Your task to perform on an android device: install app "Yahoo Mail" Image 0: 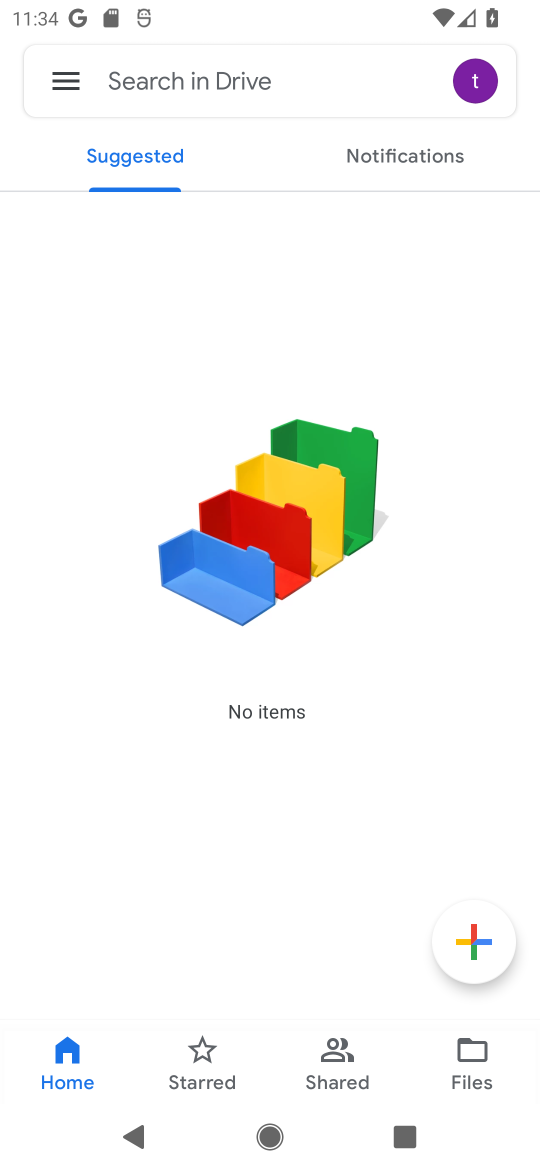
Step 0: press back button
Your task to perform on an android device: install app "Yahoo Mail" Image 1: 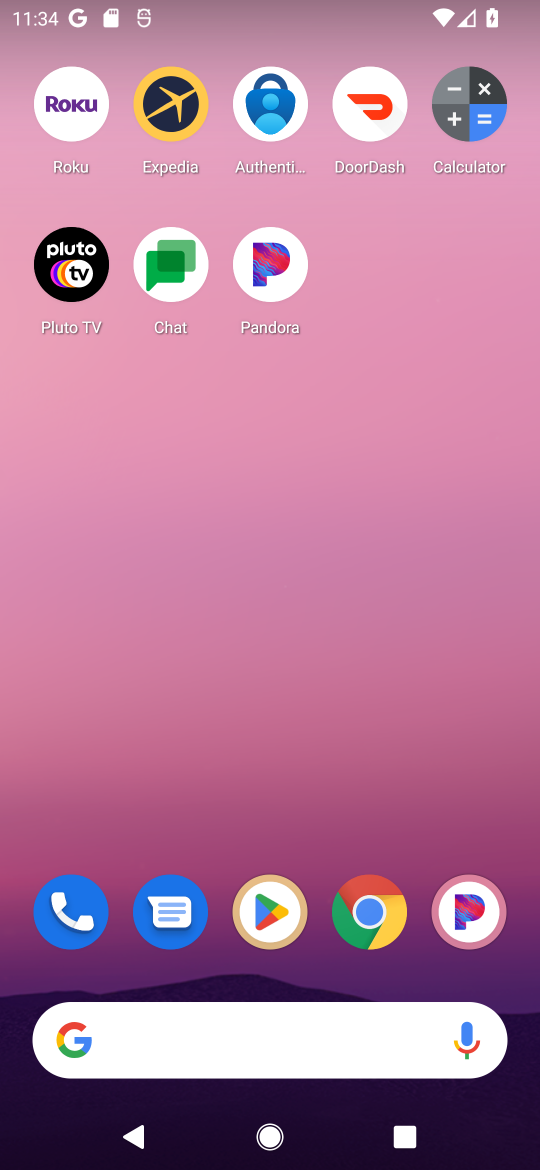
Step 1: click (264, 910)
Your task to perform on an android device: install app "Yahoo Mail" Image 2: 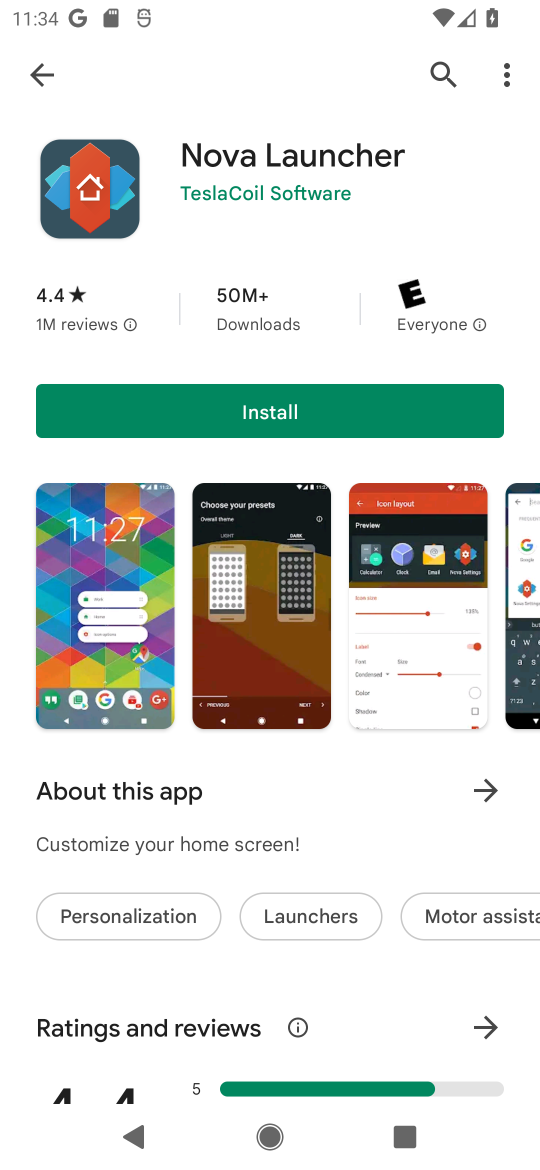
Step 2: click (440, 66)
Your task to perform on an android device: install app "Yahoo Mail" Image 3: 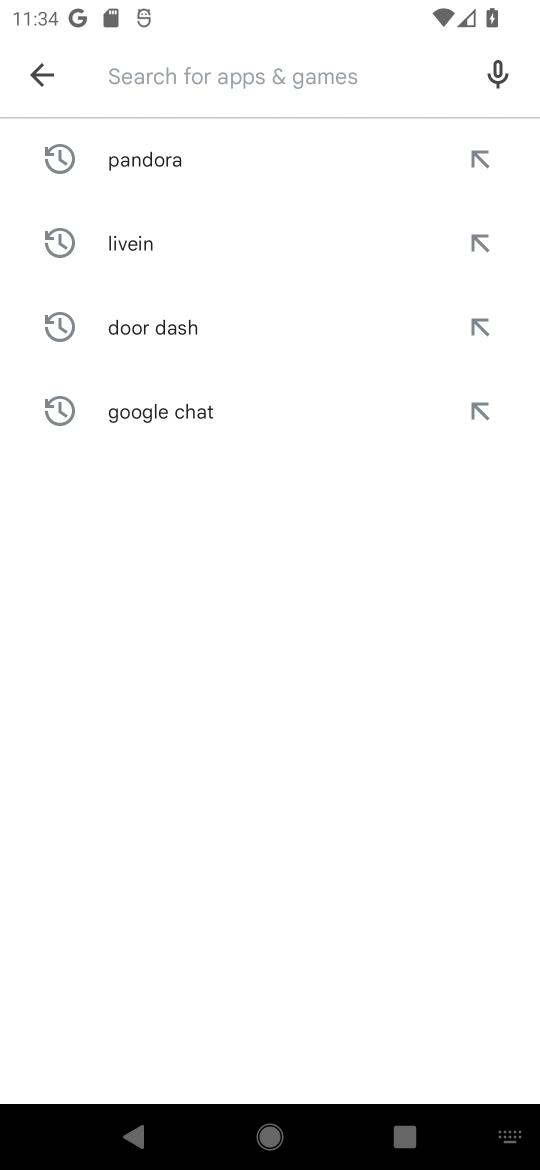
Step 3: click (179, 82)
Your task to perform on an android device: install app "Yahoo Mail" Image 4: 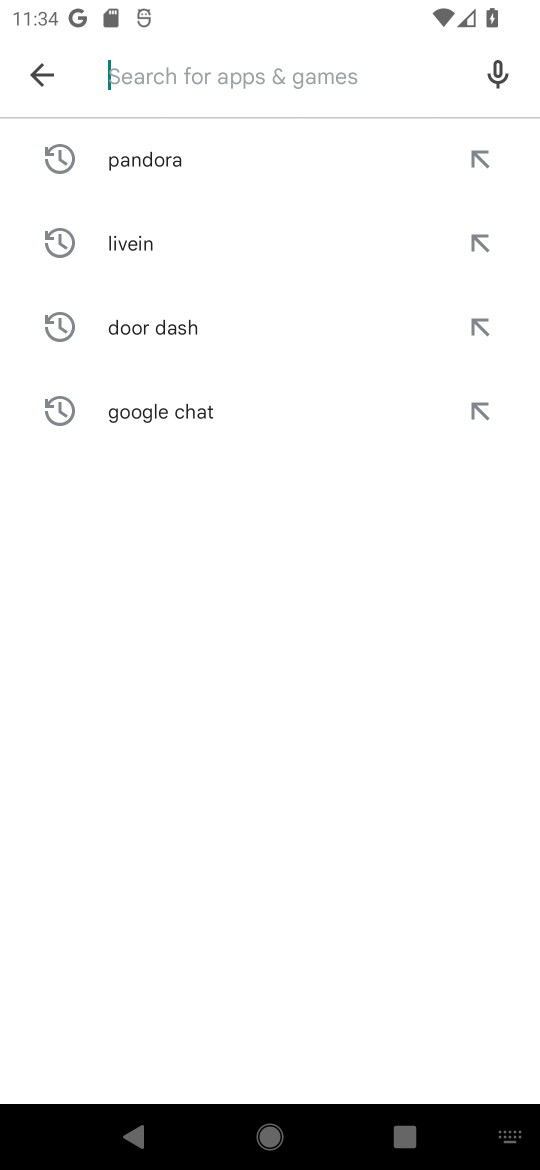
Step 4: type "Yahoo Mail"
Your task to perform on an android device: install app "Yahoo Mail" Image 5: 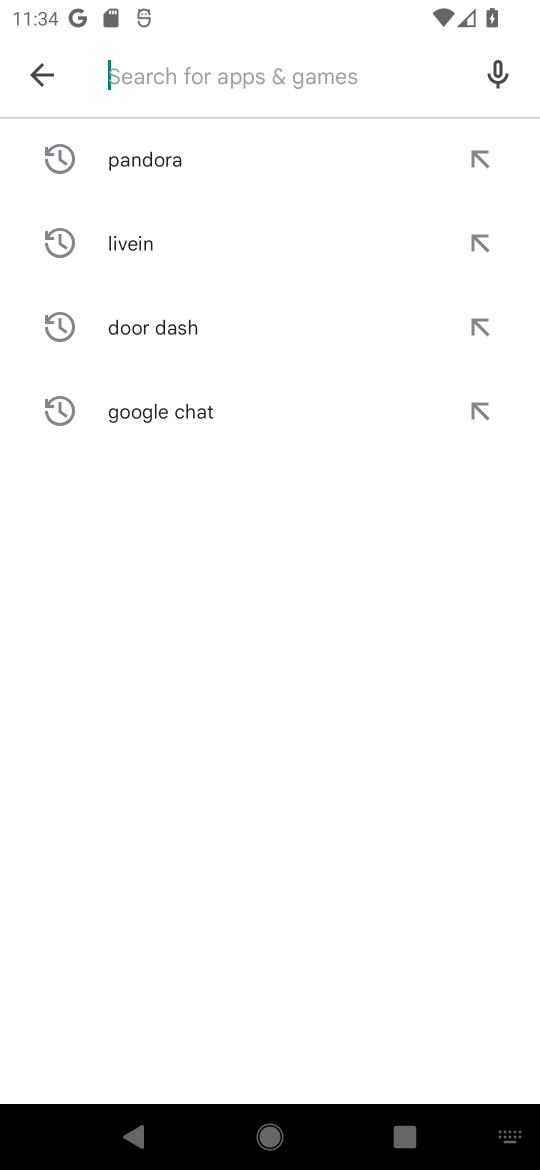
Step 5: click (316, 670)
Your task to perform on an android device: install app "Yahoo Mail" Image 6: 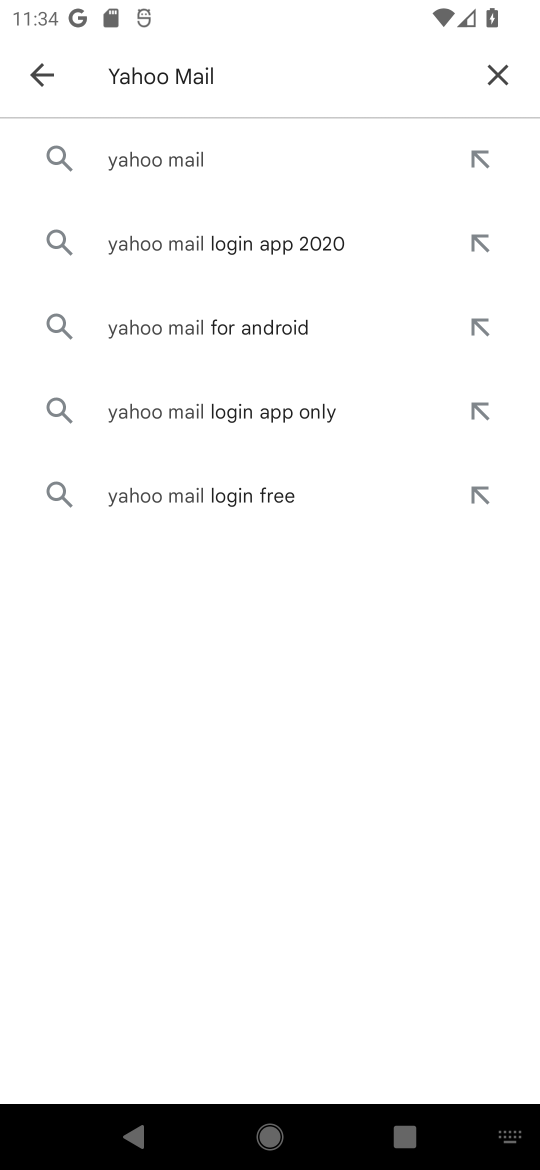
Step 6: click (232, 171)
Your task to perform on an android device: install app "Yahoo Mail" Image 7: 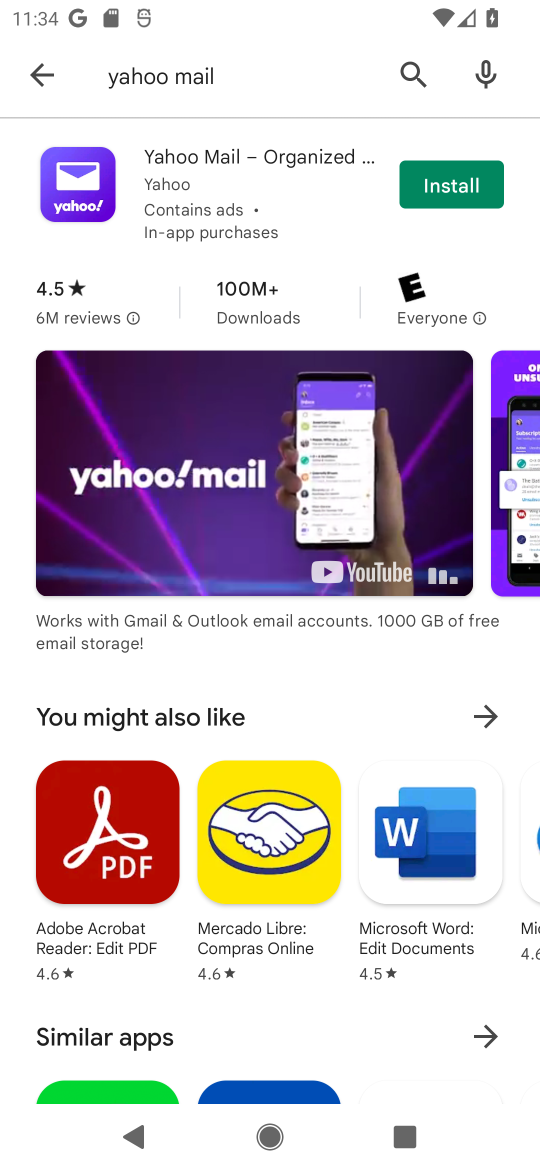
Step 7: click (456, 190)
Your task to perform on an android device: install app "Yahoo Mail" Image 8: 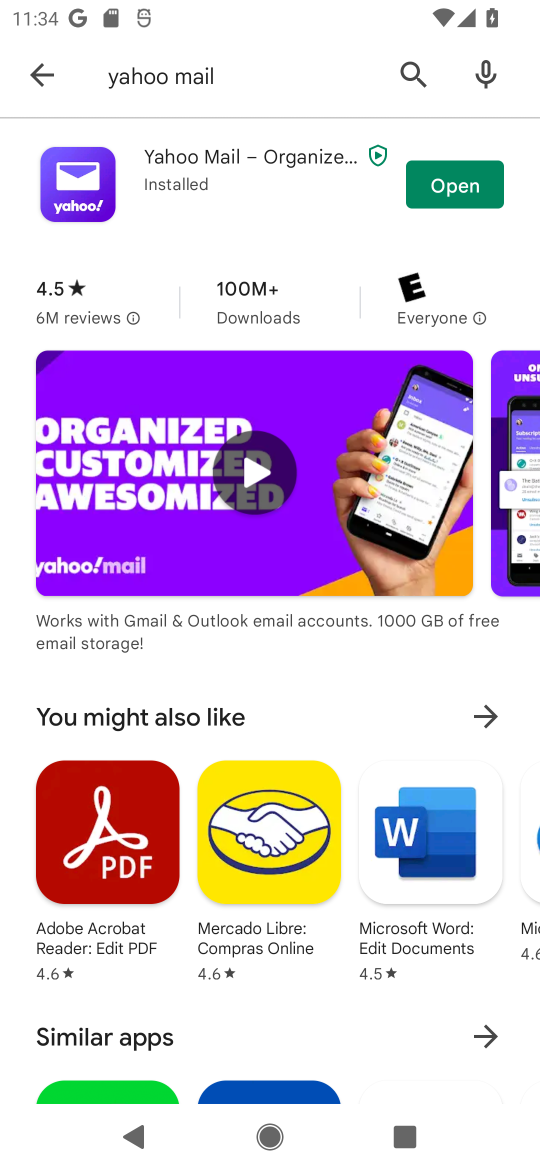
Step 8: click (457, 196)
Your task to perform on an android device: install app "Yahoo Mail" Image 9: 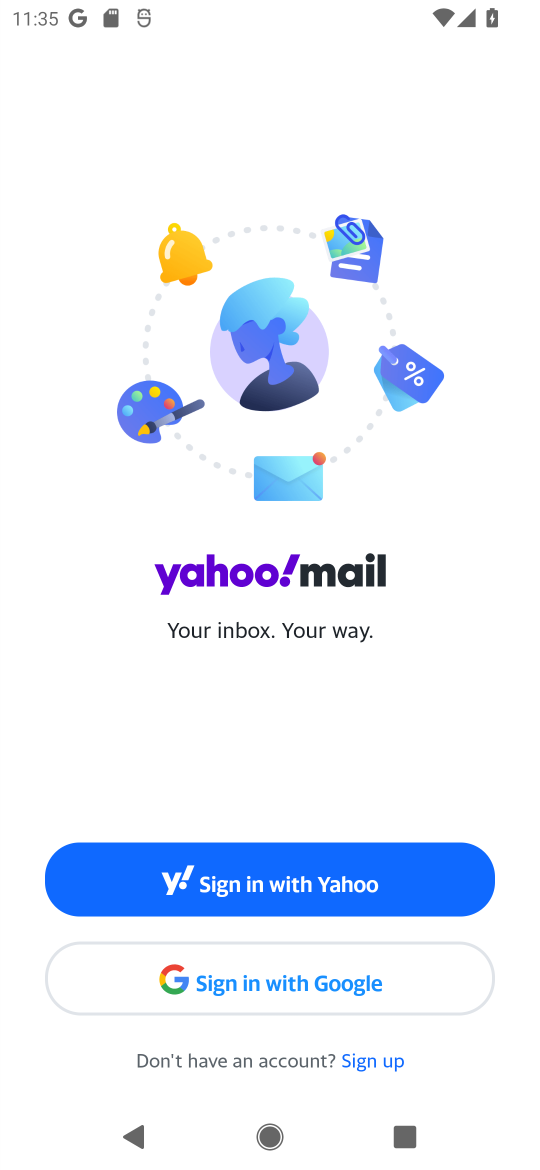
Step 9: task complete